Your task to perform on an android device: open app "DuckDuckGo Privacy Browser" (install if not already installed) and go to login screen Image 0: 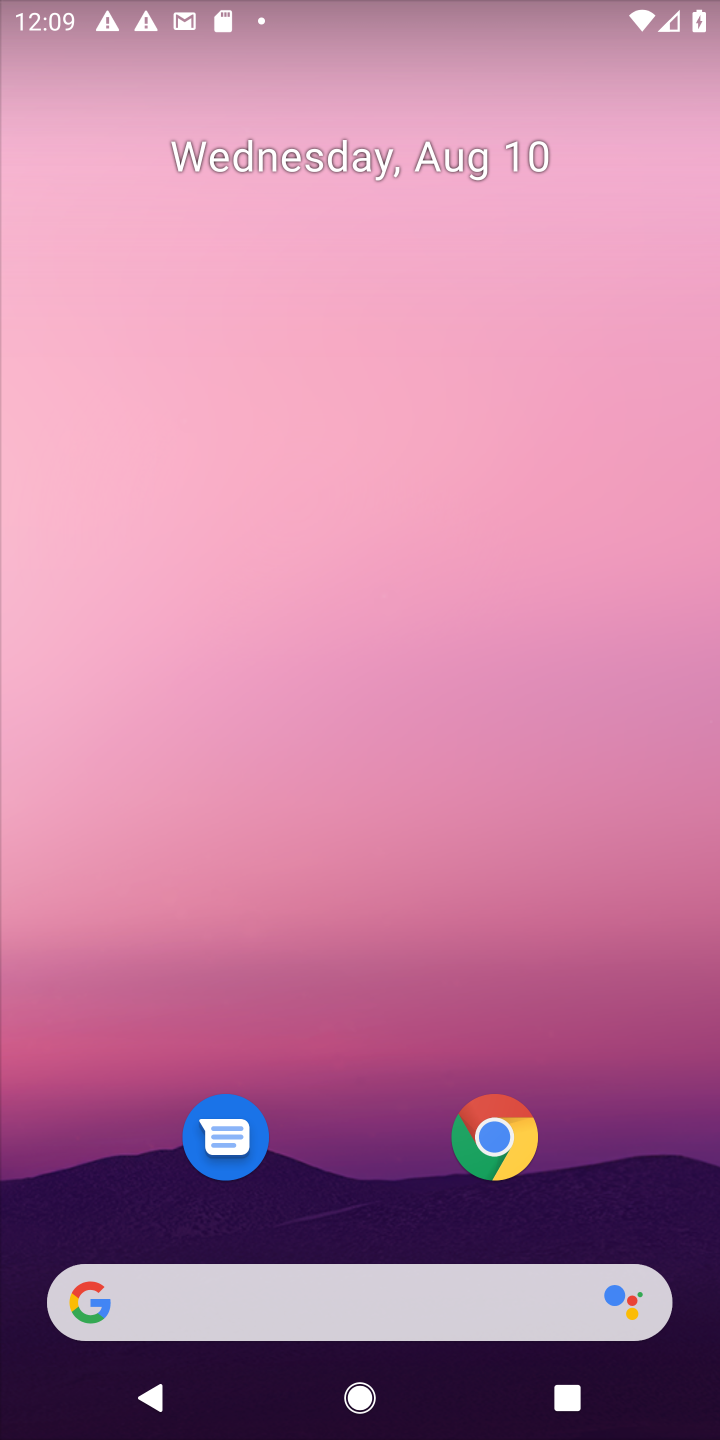
Step 0: drag from (391, 1171) to (205, 121)
Your task to perform on an android device: open app "DuckDuckGo Privacy Browser" (install if not already installed) and go to login screen Image 1: 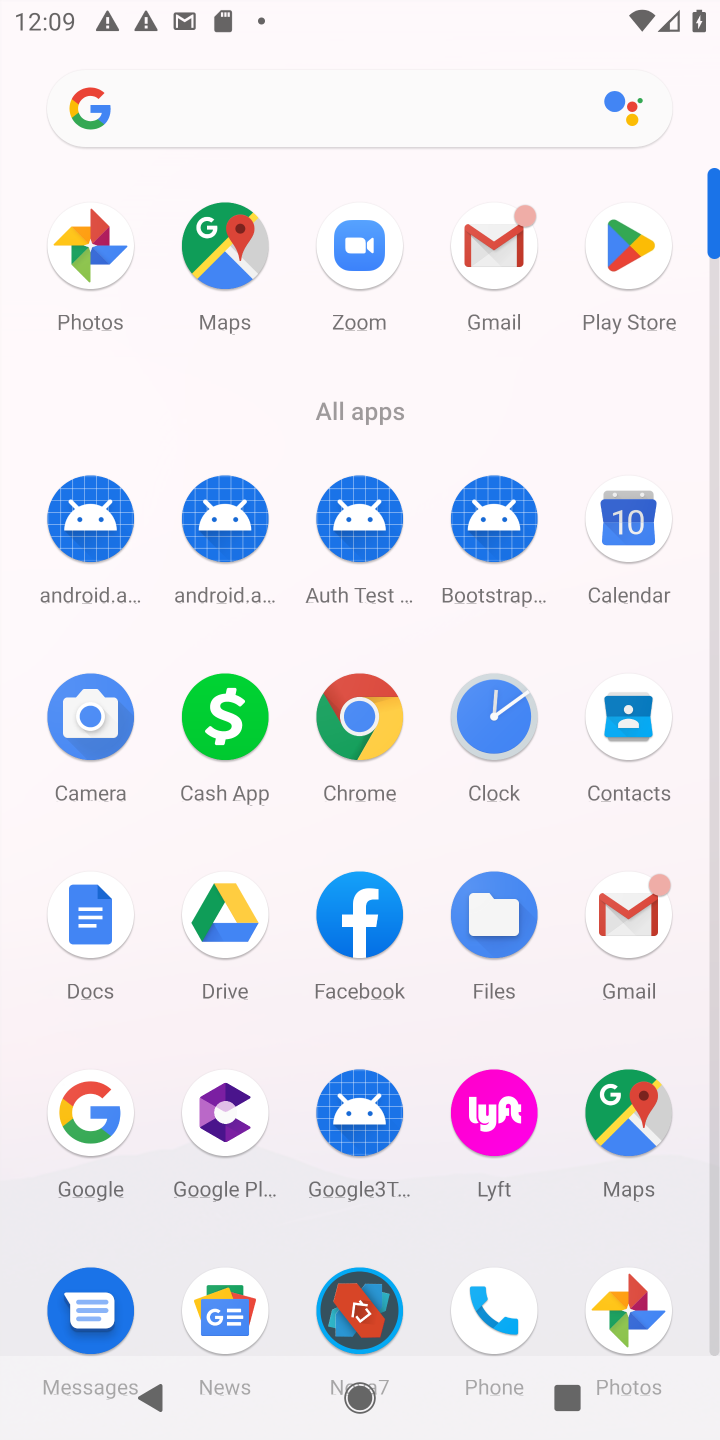
Step 1: click (623, 255)
Your task to perform on an android device: open app "DuckDuckGo Privacy Browser" (install if not already installed) and go to login screen Image 2: 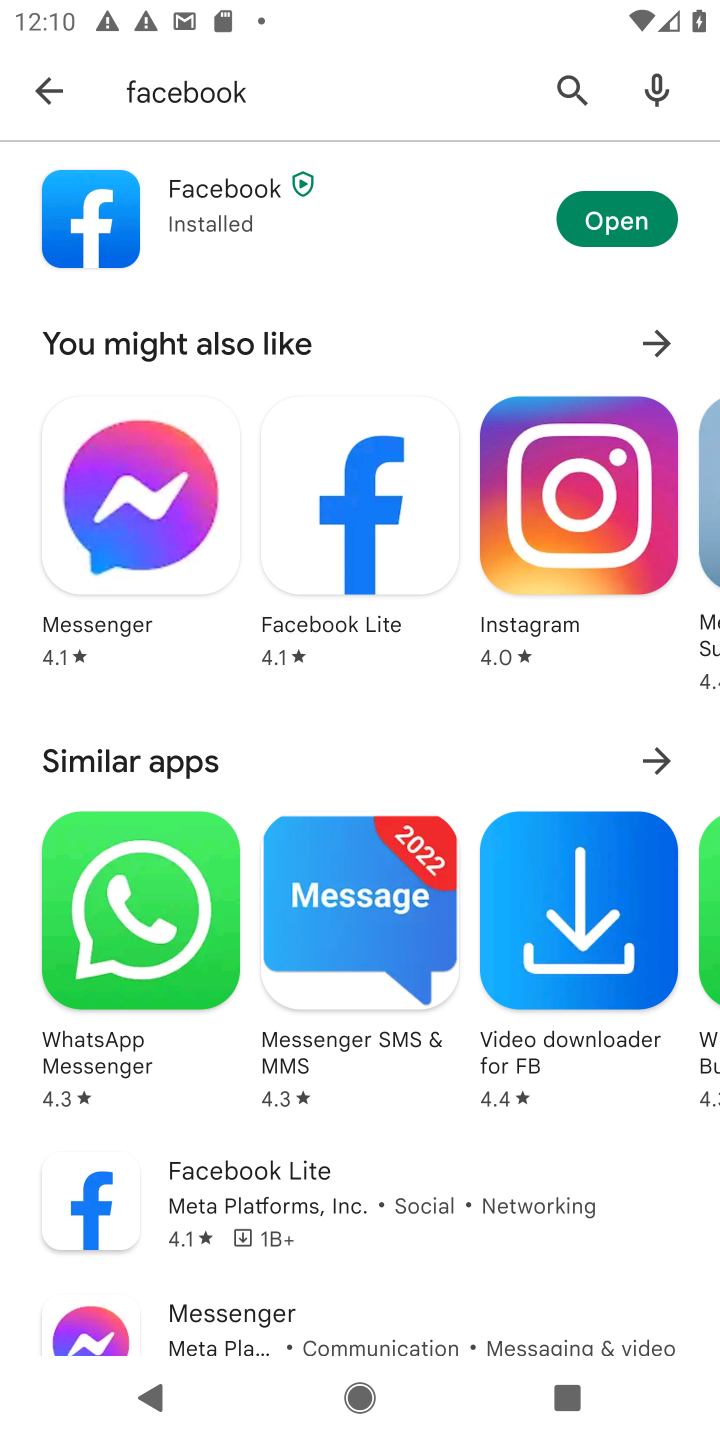
Step 2: click (561, 82)
Your task to perform on an android device: open app "DuckDuckGo Privacy Browser" (install if not already installed) and go to login screen Image 3: 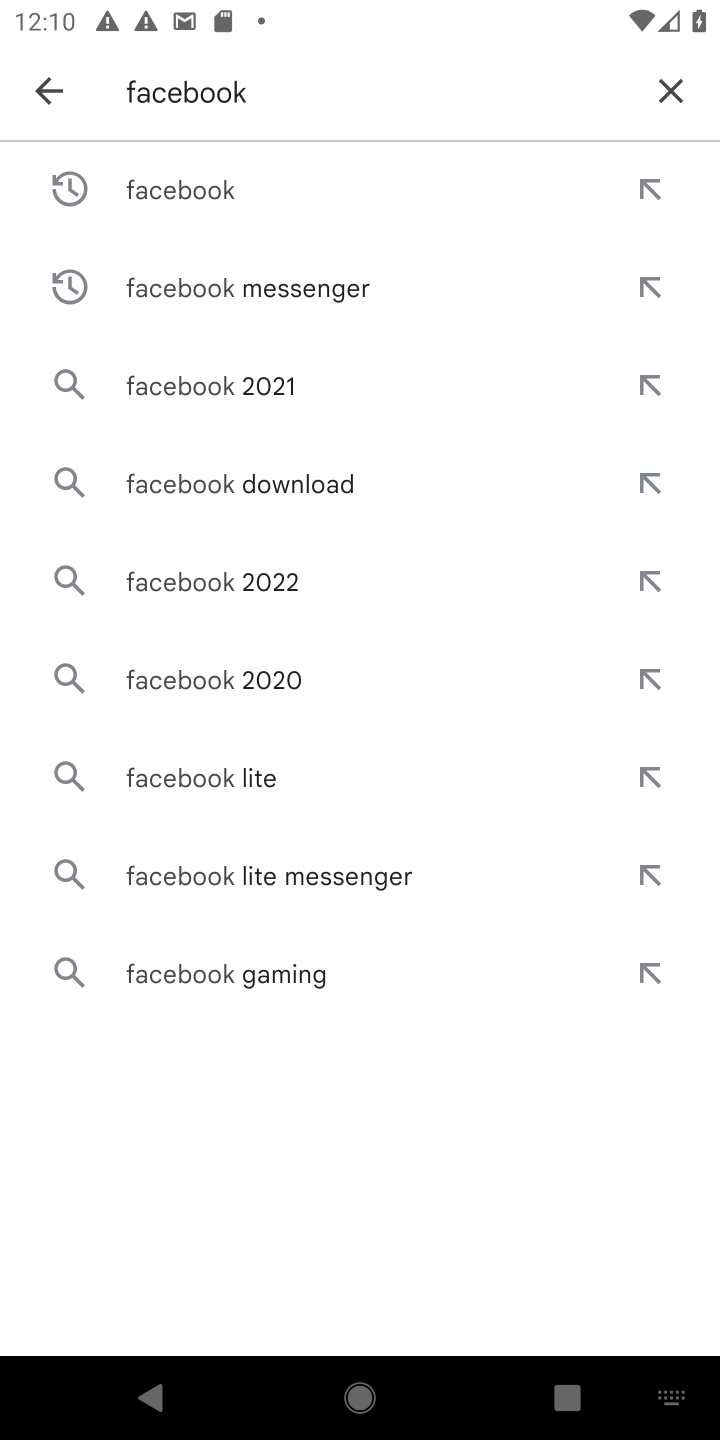
Step 3: click (672, 79)
Your task to perform on an android device: open app "DuckDuckGo Privacy Browser" (install if not already installed) and go to login screen Image 4: 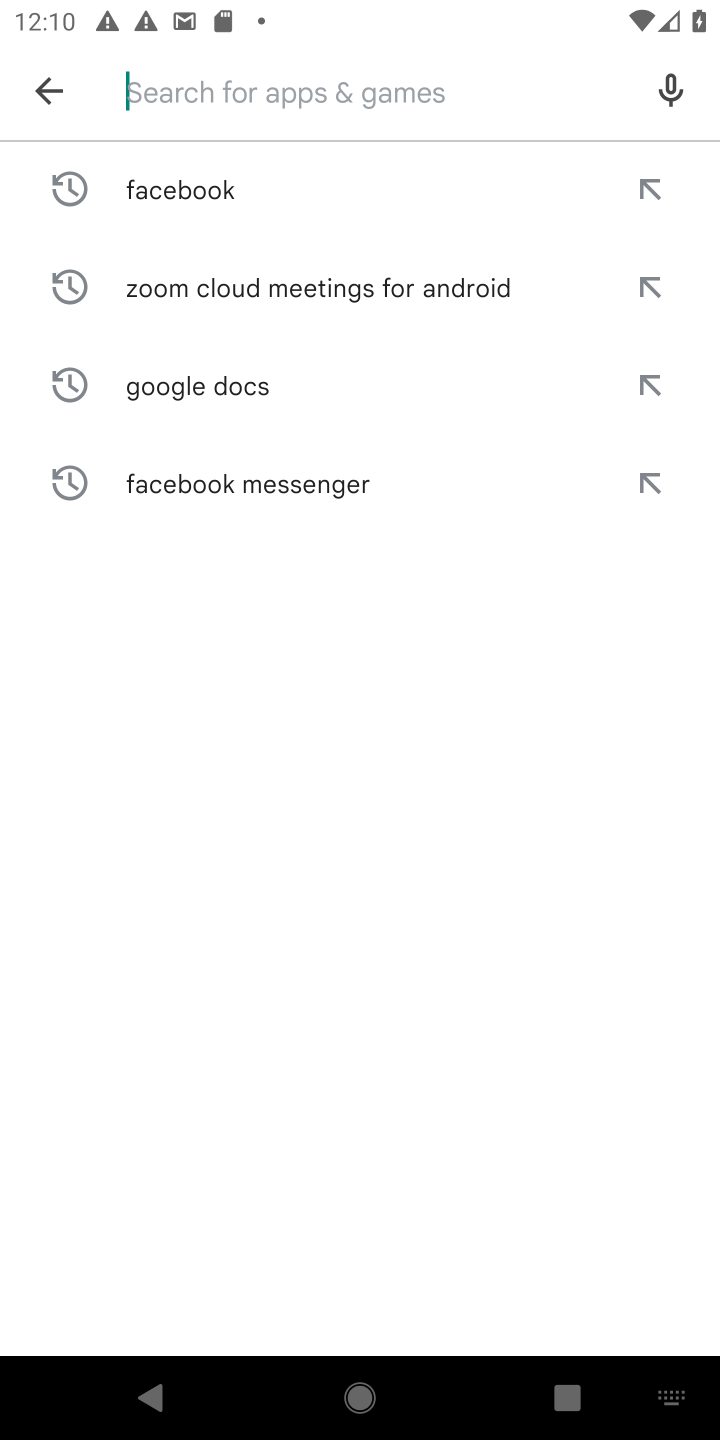
Step 4: type "DuckDuckGo Privacy Browser"
Your task to perform on an android device: open app "DuckDuckGo Privacy Browser" (install if not already installed) and go to login screen Image 5: 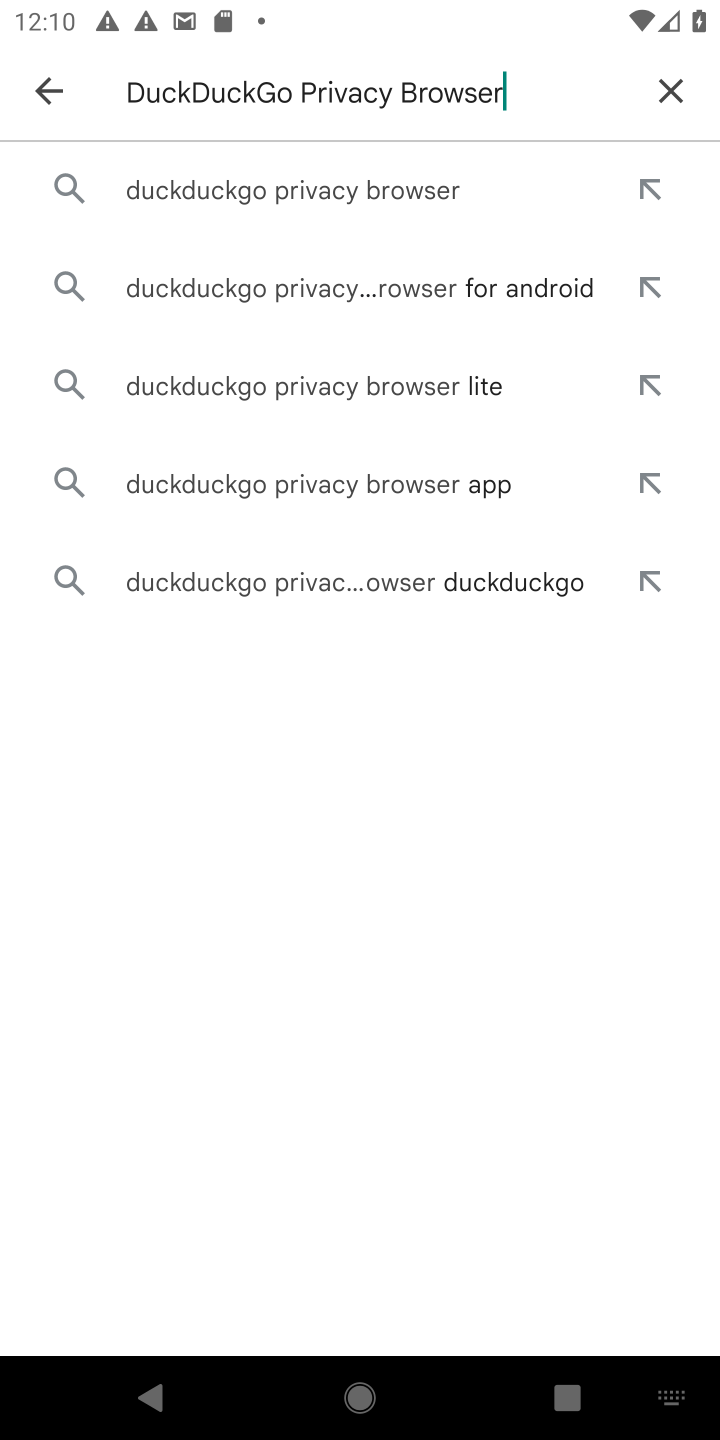
Step 5: click (406, 184)
Your task to perform on an android device: open app "DuckDuckGo Privacy Browser" (install if not already installed) and go to login screen Image 6: 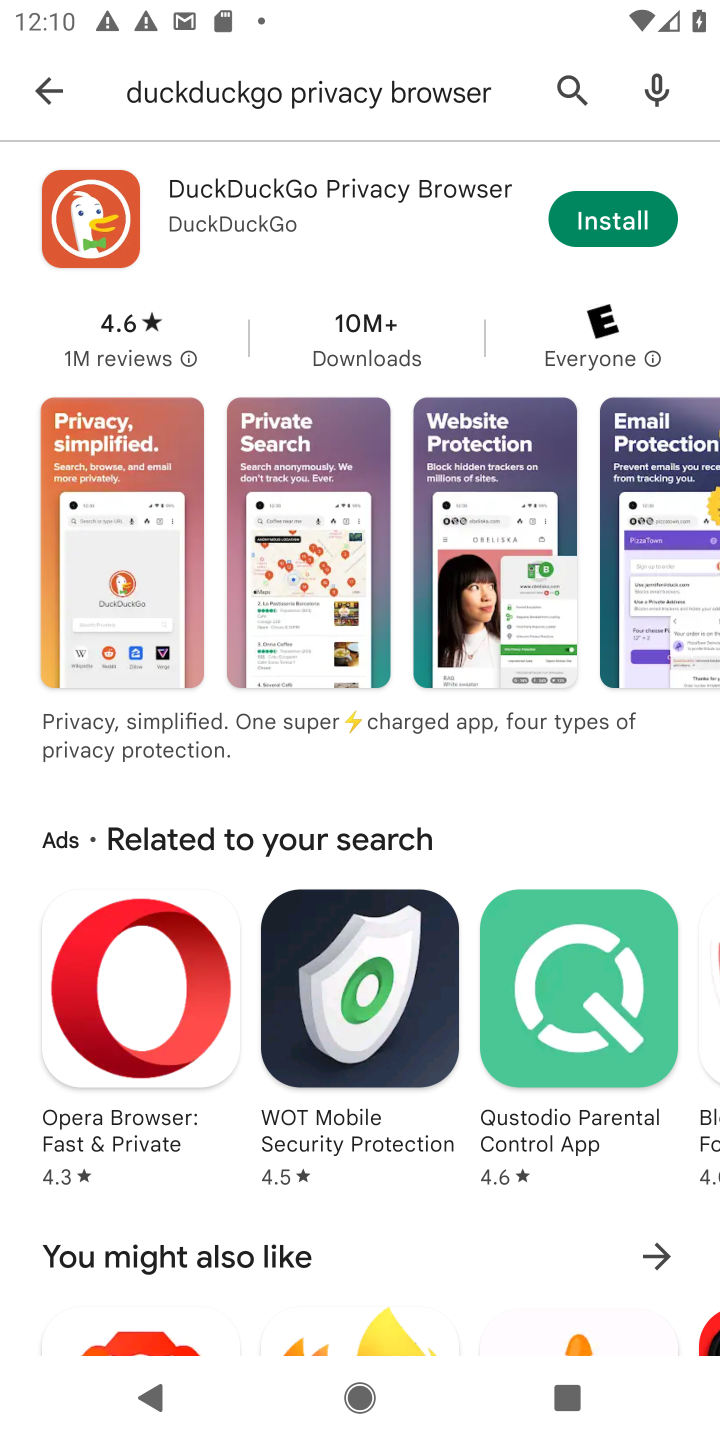
Step 6: click (617, 220)
Your task to perform on an android device: open app "DuckDuckGo Privacy Browser" (install if not already installed) and go to login screen Image 7: 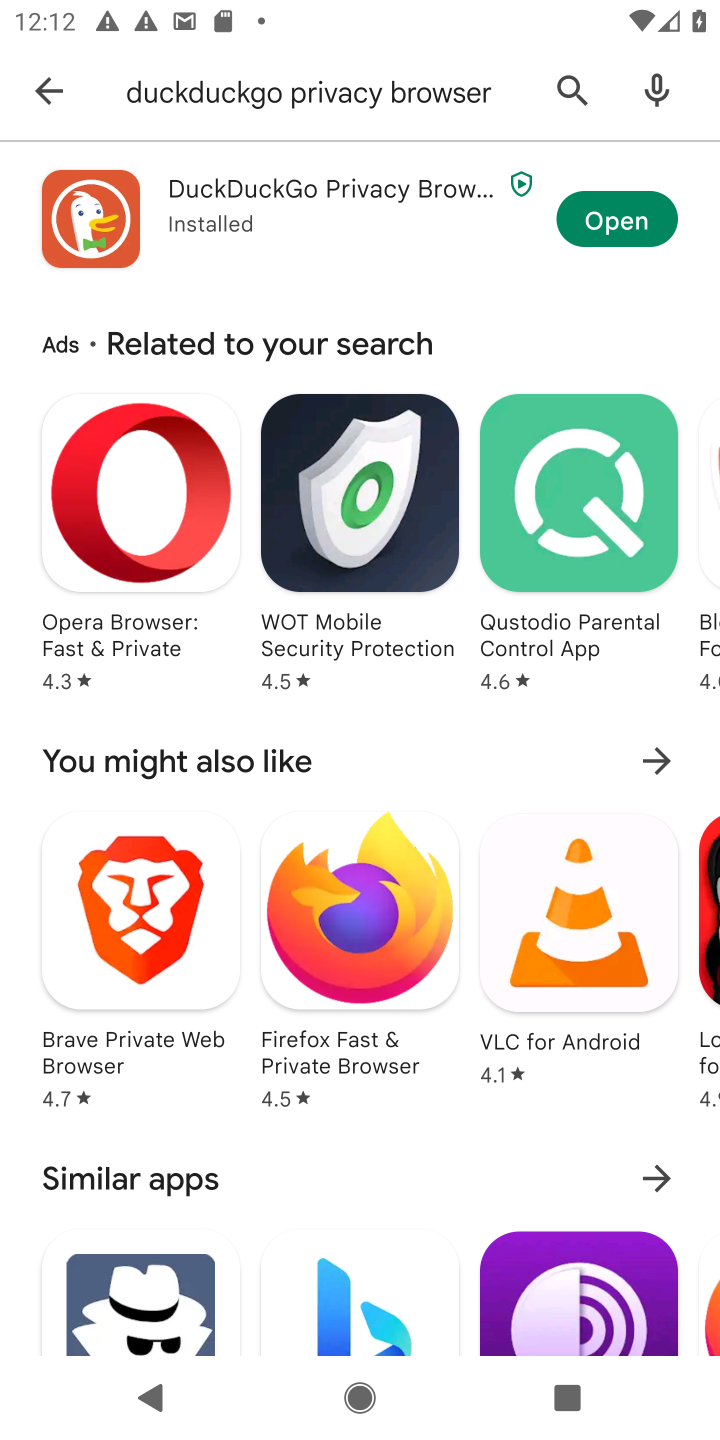
Step 7: click (614, 215)
Your task to perform on an android device: open app "DuckDuckGo Privacy Browser" (install if not already installed) and go to login screen Image 8: 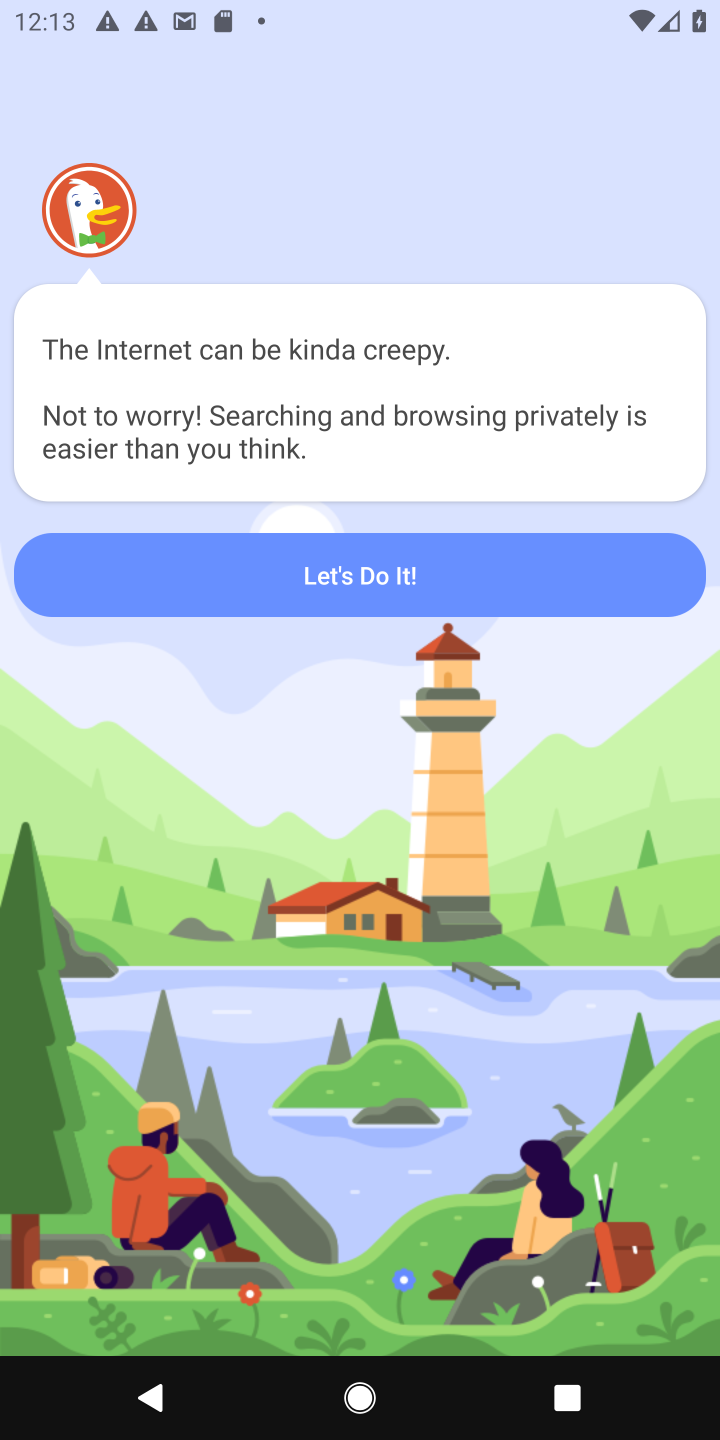
Step 8: click (386, 584)
Your task to perform on an android device: open app "DuckDuckGo Privacy Browser" (install if not already installed) and go to login screen Image 9: 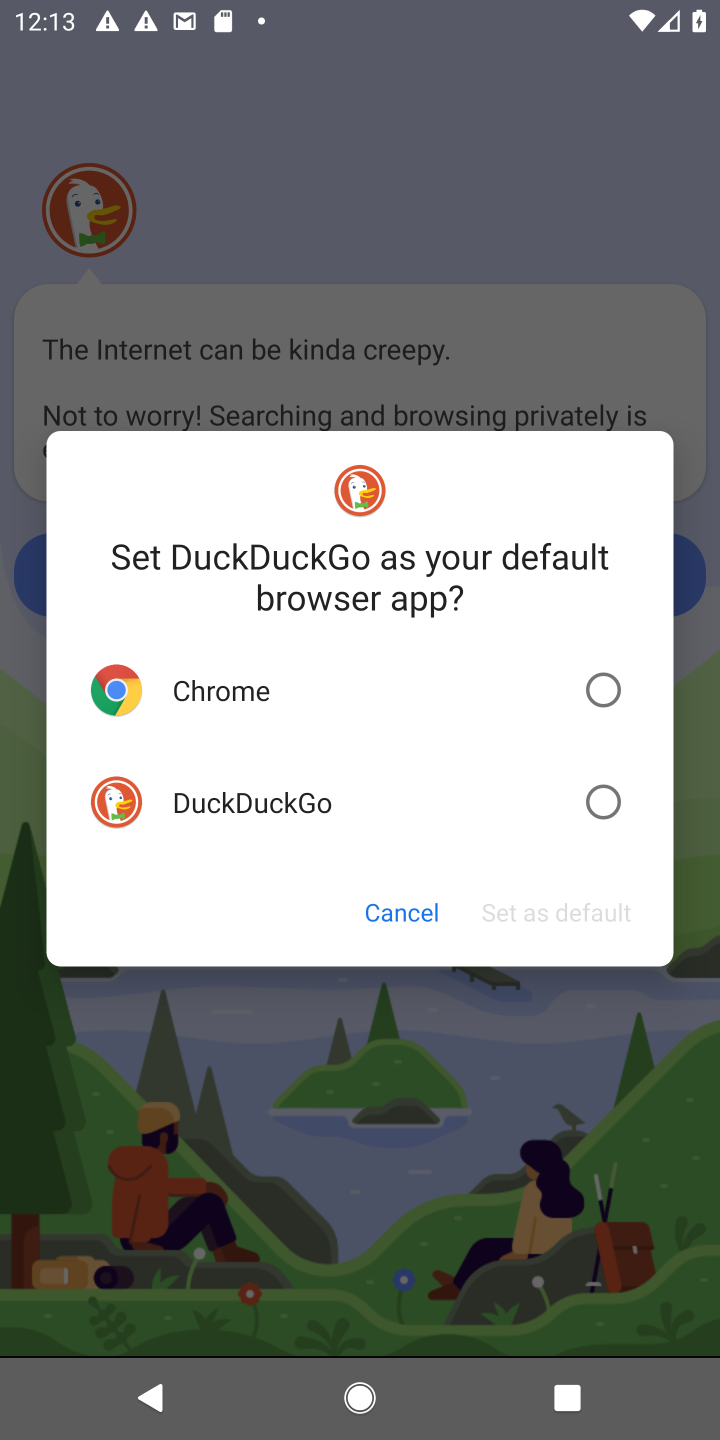
Step 9: click (601, 806)
Your task to perform on an android device: open app "DuckDuckGo Privacy Browser" (install if not already installed) and go to login screen Image 10: 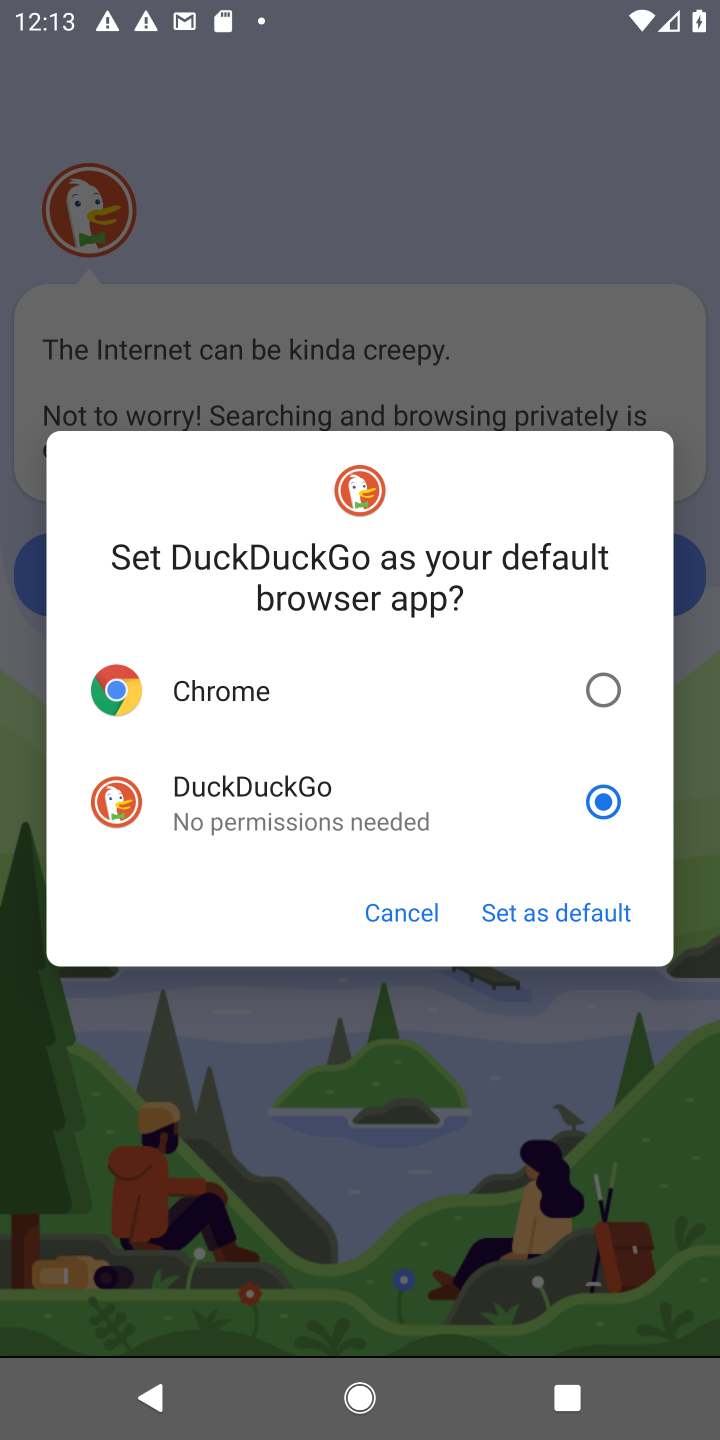
Step 10: click (572, 911)
Your task to perform on an android device: open app "DuckDuckGo Privacy Browser" (install if not already installed) and go to login screen Image 11: 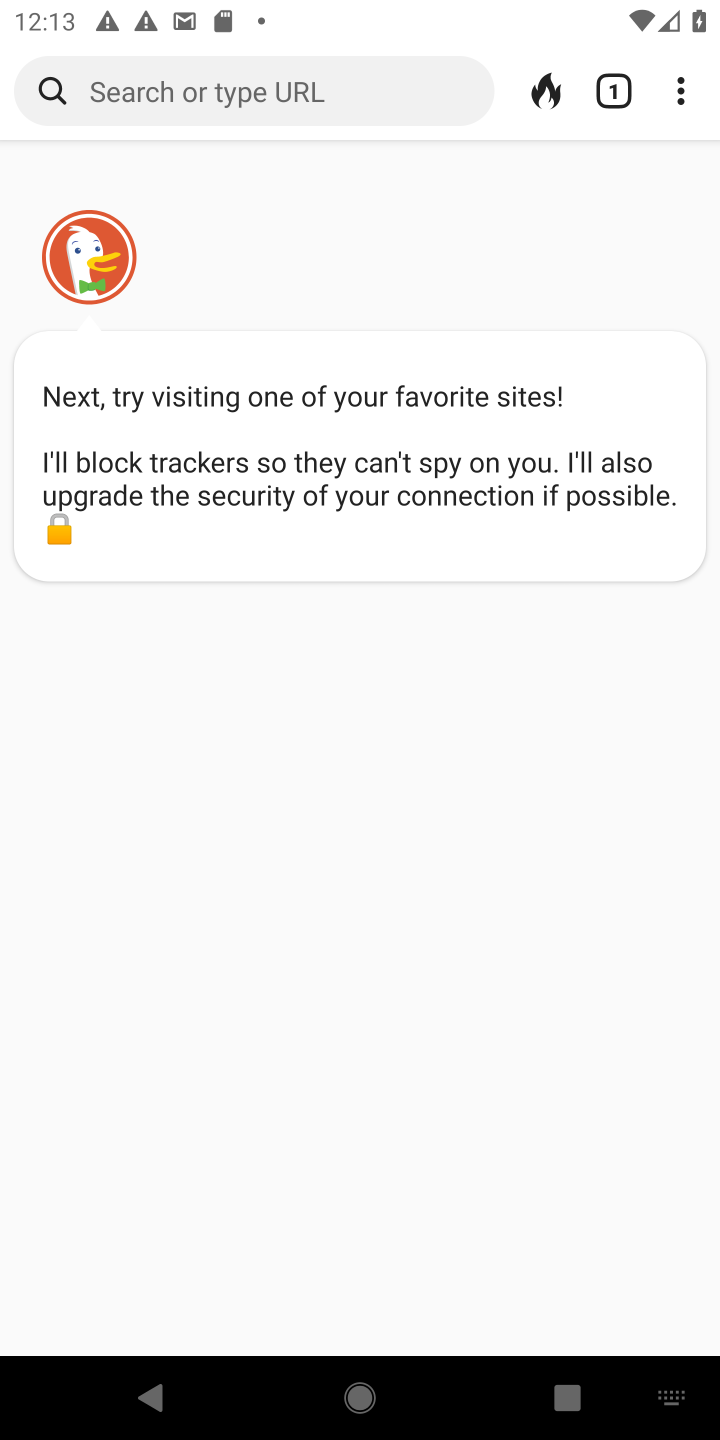
Step 11: task complete